Your task to perform on an android device: Open privacy settings Image 0: 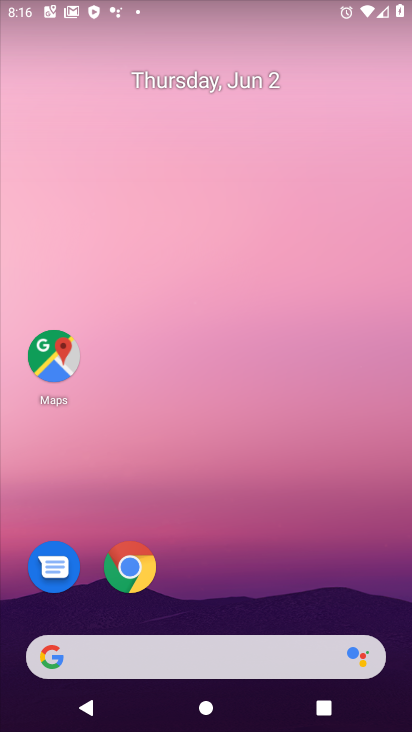
Step 0: drag from (246, 541) to (255, 161)
Your task to perform on an android device: Open privacy settings Image 1: 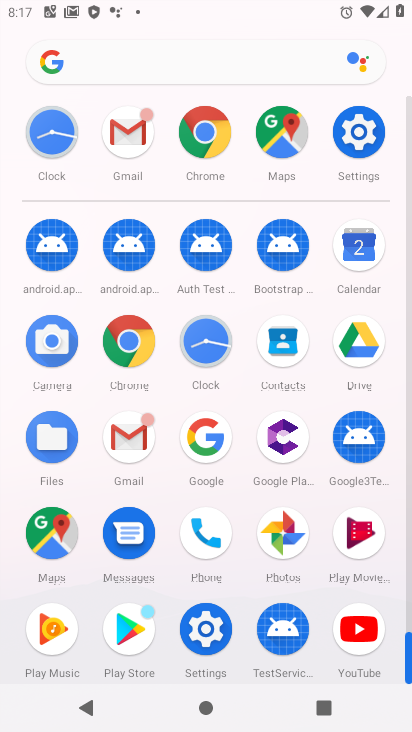
Step 1: click (358, 130)
Your task to perform on an android device: Open privacy settings Image 2: 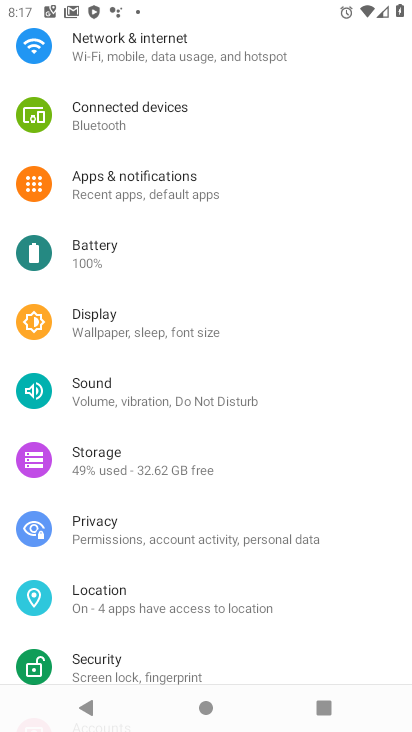
Step 2: click (130, 532)
Your task to perform on an android device: Open privacy settings Image 3: 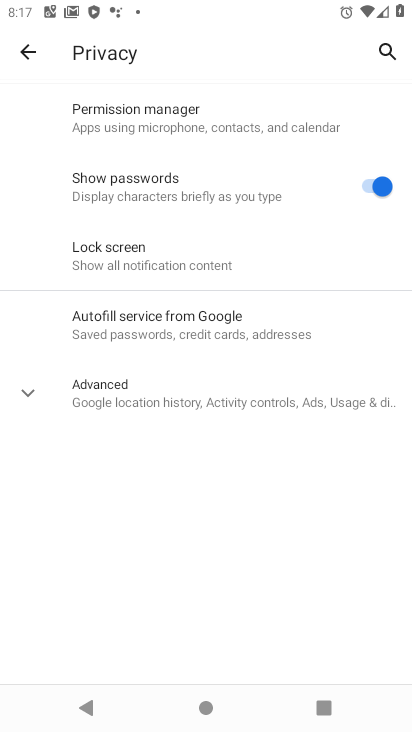
Step 3: task complete